Your task to perform on an android device: turn off sleep mode Image 0: 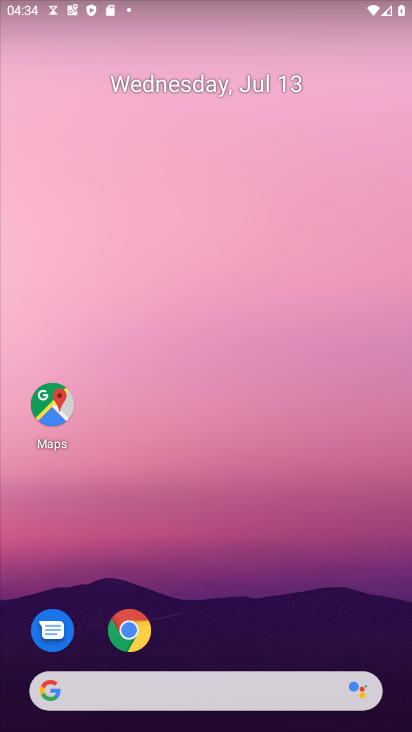
Step 0: drag from (216, 666) to (272, 28)
Your task to perform on an android device: turn off sleep mode Image 1: 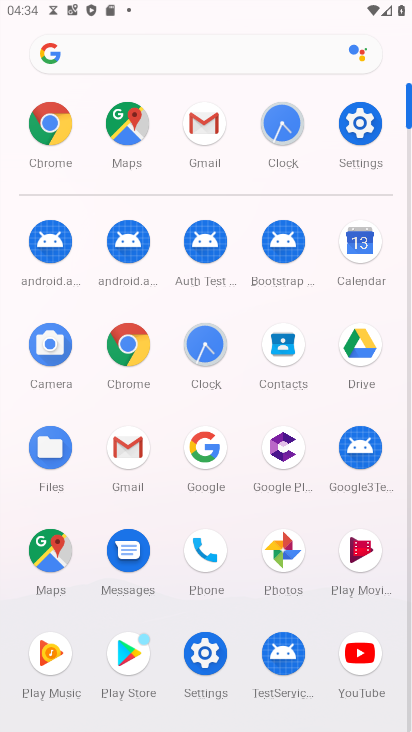
Step 1: click (361, 111)
Your task to perform on an android device: turn off sleep mode Image 2: 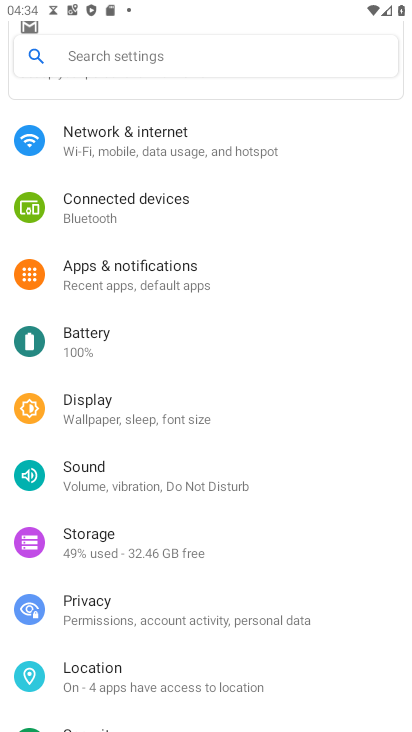
Step 2: click (143, 417)
Your task to perform on an android device: turn off sleep mode Image 3: 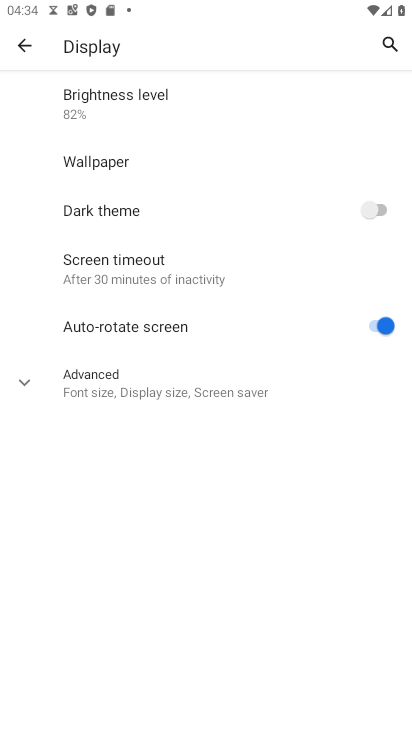
Step 3: task complete